Your task to perform on an android device: choose inbox layout in the gmail app Image 0: 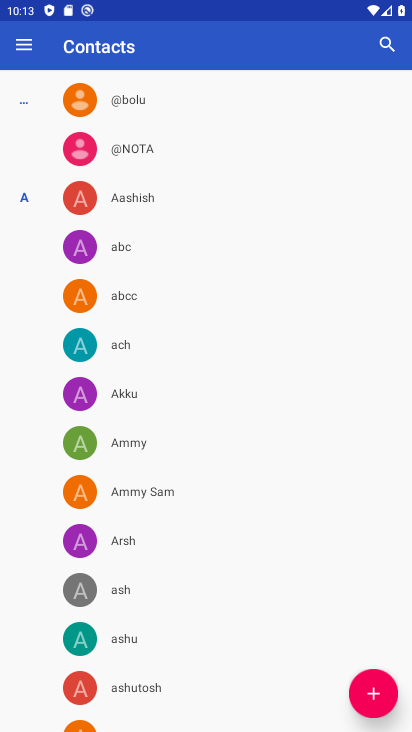
Step 0: press home button
Your task to perform on an android device: choose inbox layout in the gmail app Image 1: 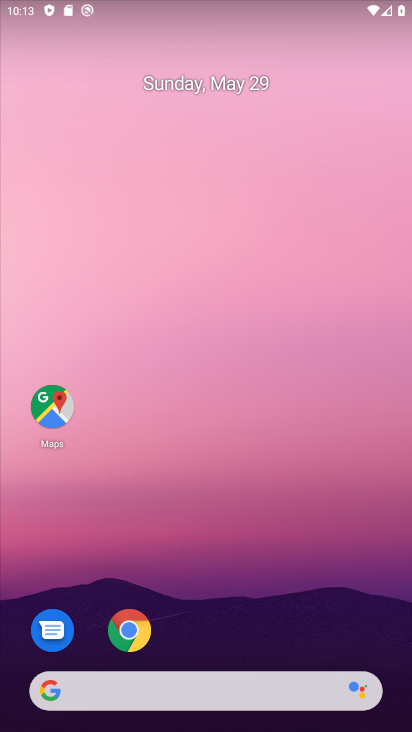
Step 1: drag from (270, 629) to (243, 236)
Your task to perform on an android device: choose inbox layout in the gmail app Image 2: 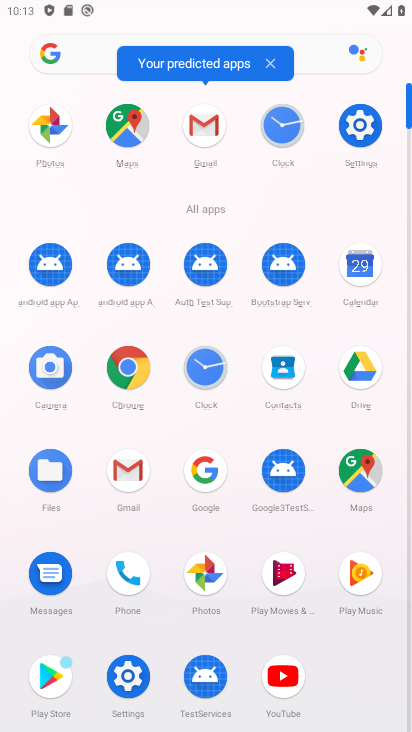
Step 2: click (205, 139)
Your task to perform on an android device: choose inbox layout in the gmail app Image 3: 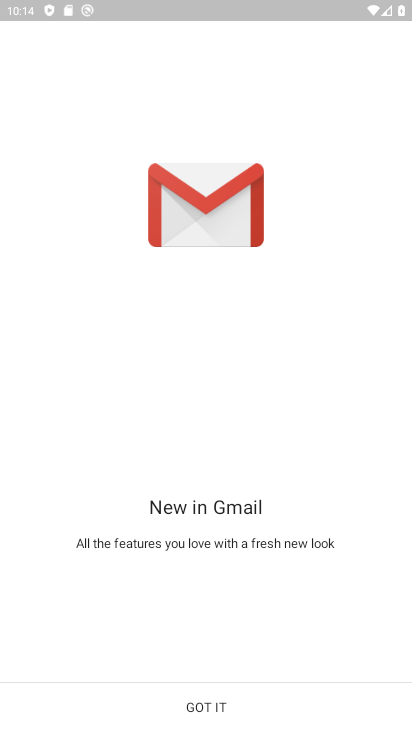
Step 3: click (221, 700)
Your task to perform on an android device: choose inbox layout in the gmail app Image 4: 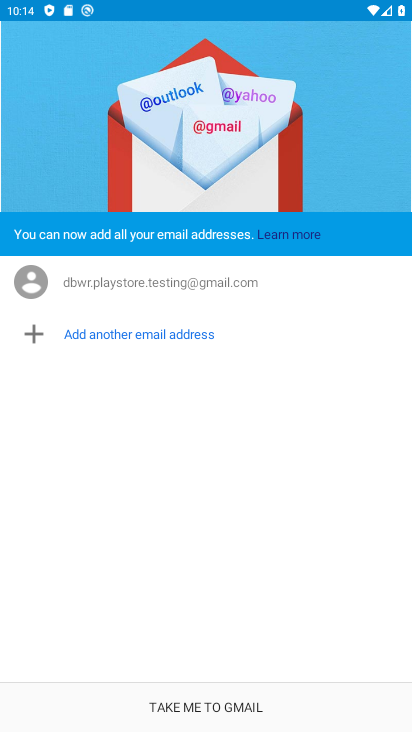
Step 4: click (221, 700)
Your task to perform on an android device: choose inbox layout in the gmail app Image 5: 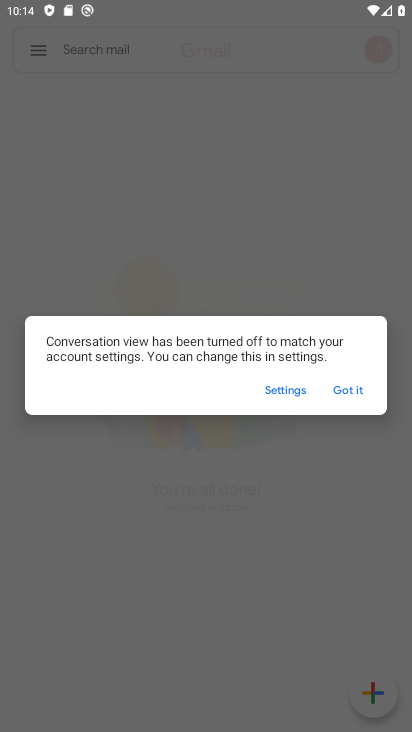
Step 5: click (352, 389)
Your task to perform on an android device: choose inbox layout in the gmail app Image 6: 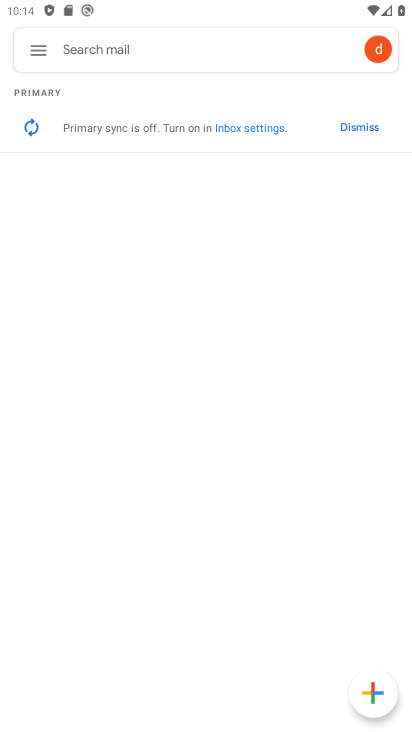
Step 6: click (40, 53)
Your task to perform on an android device: choose inbox layout in the gmail app Image 7: 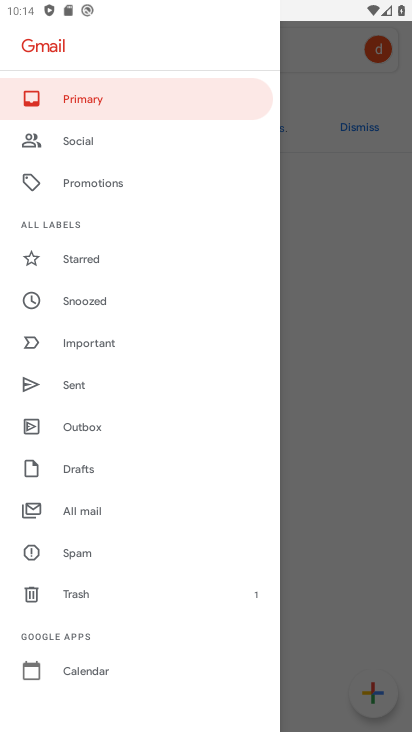
Step 7: drag from (124, 681) to (80, 332)
Your task to perform on an android device: choose inbox layout in the gmail app Image 8: 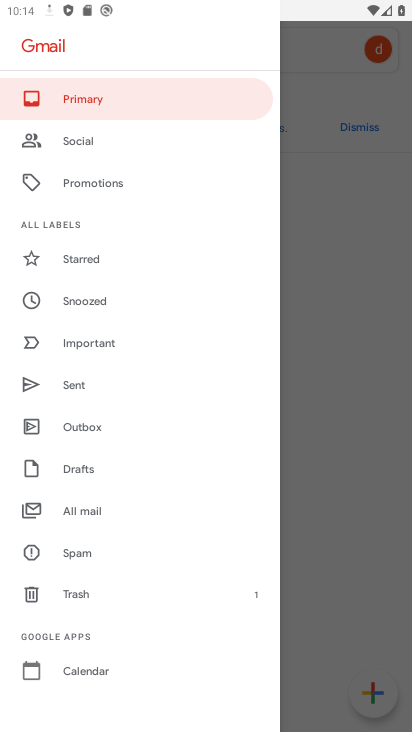
Step 8: drag from (69, 651) to (79, 273)
Your task to perform on an android device: choose inbox layout in the gmail app Image 9: 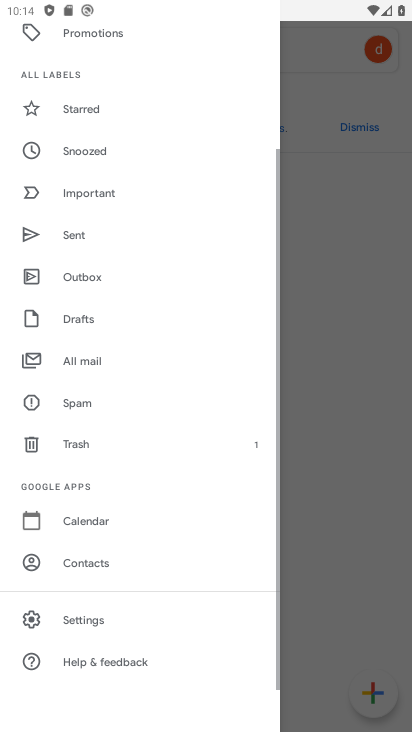
Step 9: click (113, 619)
Your task to perform on an android device: choose inbox layout in the gmail app Image 10: 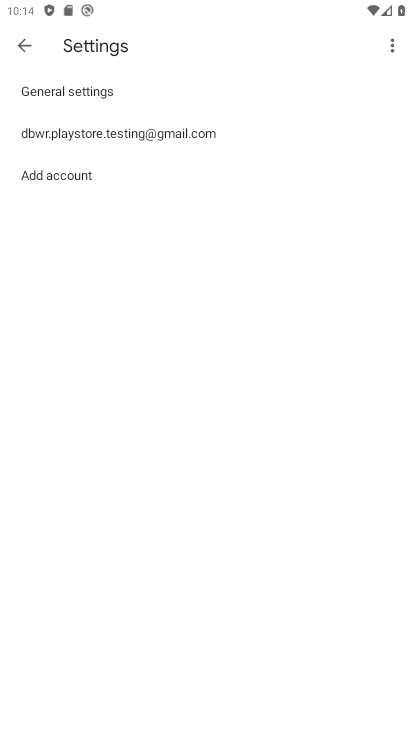
Step 10: click (174, 131)
Your task to perform on an android device: choose inbox layout in the gmail app Image 11: 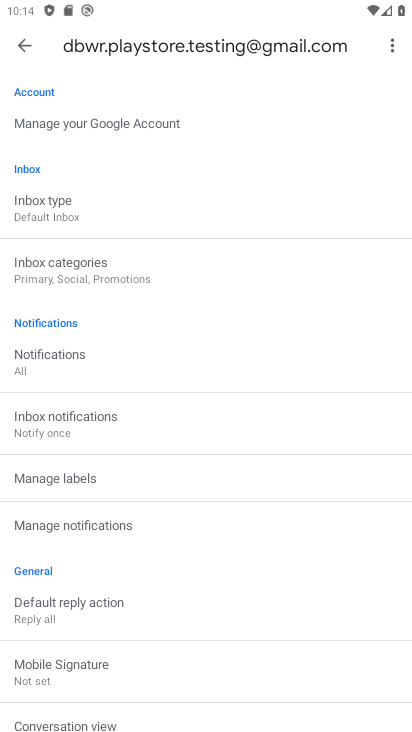
Step 11: drag from (141, 635) to (136, 308)
Your task to perform on an android device: choose inbox layout in the gmail app Image 12: 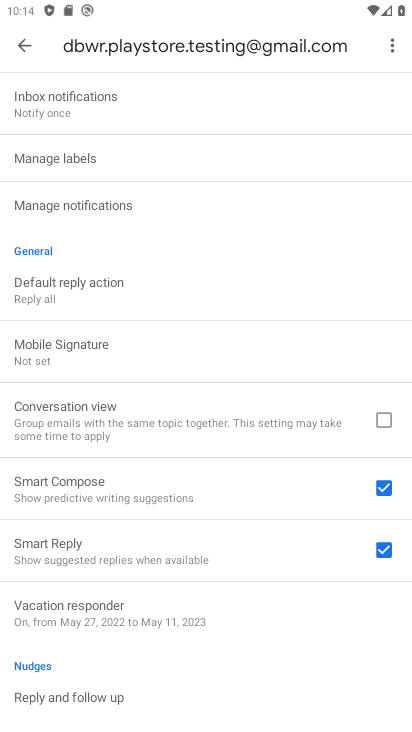
Step 12: drag from (144, 270) to (161, 678)
Your task to perform on an android device: choose inbox layout in the gmail app Image 13: 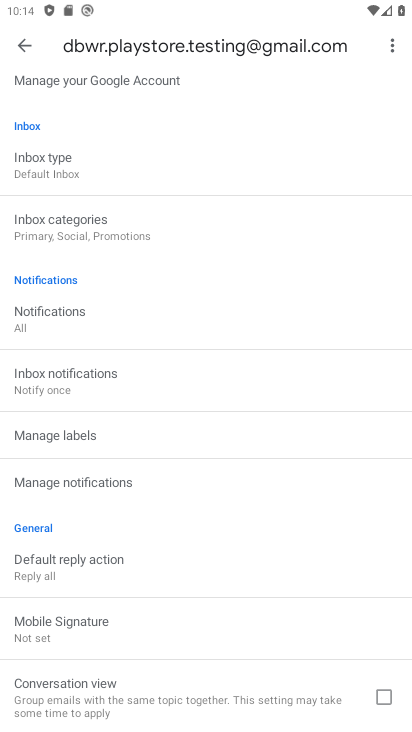
Step 13: click (128, 167)
Your task to perform on an android device: choose inbox layout in the gmail app Image 14: 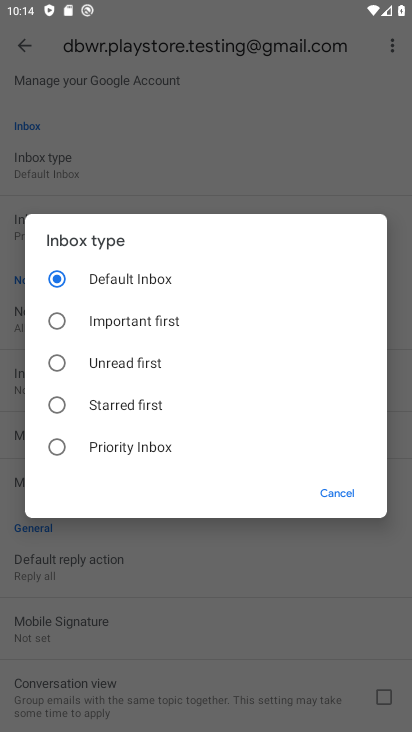
Step 14: click (142, 420)
Your task to perform on an android device: choose inbox layout in the gmail app Image 15: 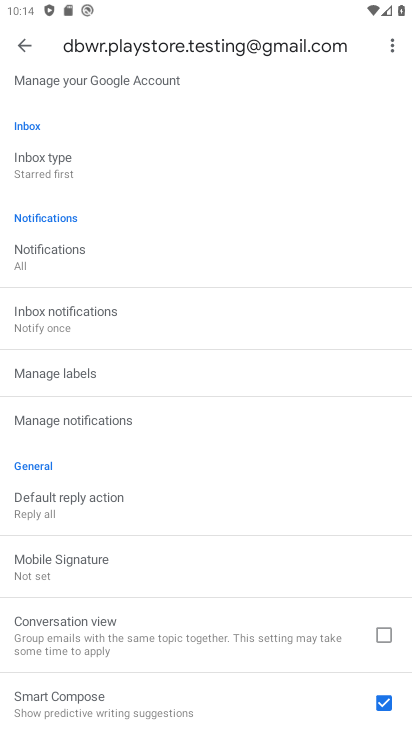
Step 15: task complete